Your task to perform on an android device: set an alarm Image 0: 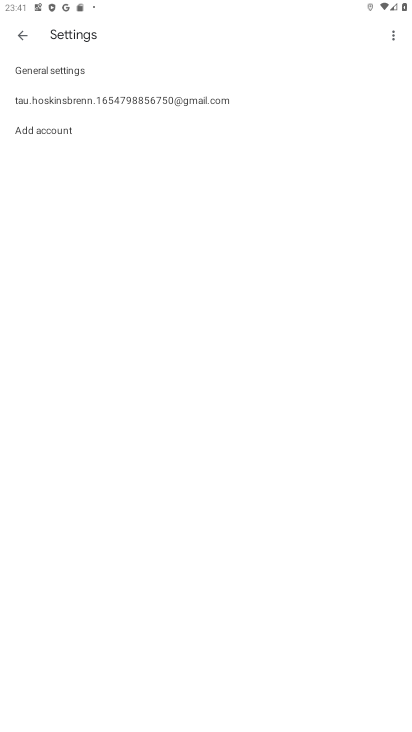
Step 0: press home button
Your task to perform on an android device: set an alarm Image 1: 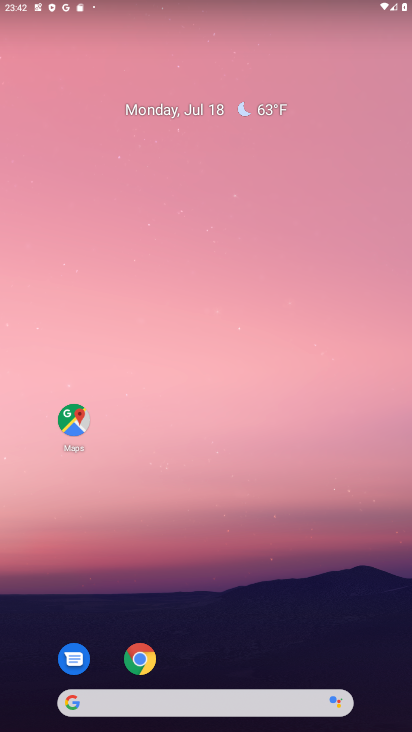
Step 1: drag from (272, 626) to (265, 187)
Your task to perform on an android device: set an alarm Image 2: 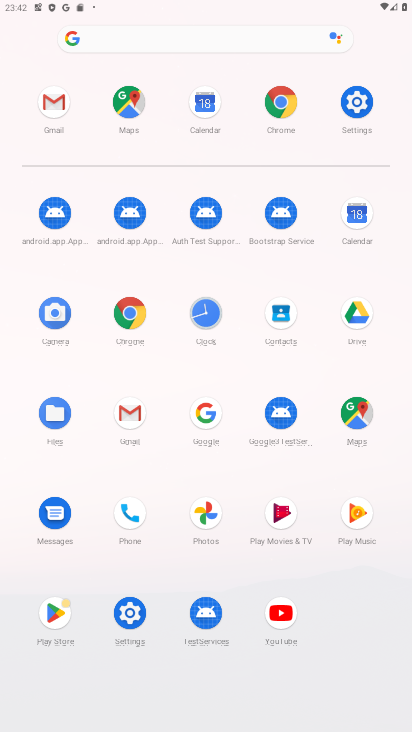
Step 2: click (210, 304)
Your task to perform on an android device: set an alarm Image 3: 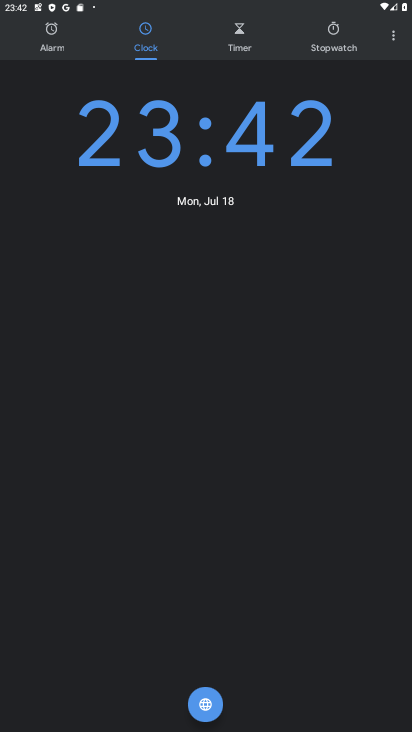
Step 3: click (55, 47)
Your task to perform on an android device: set an alarm Image 4: 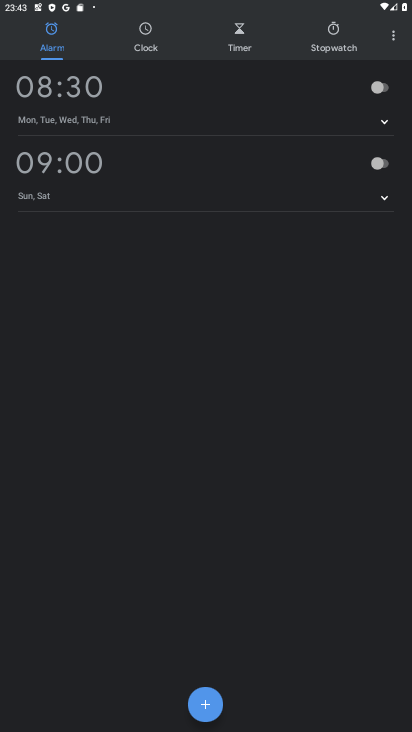
Step 4: click (226, 706)
Your task to perform on an android device: set an alarm Image 5: 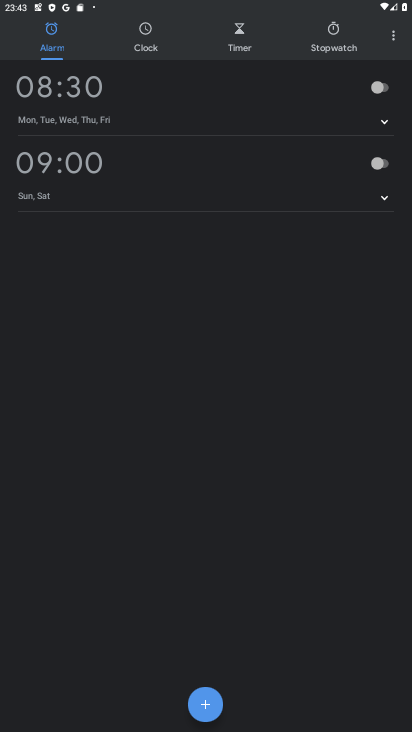
Step 5: click (214, 704)
Your task to perform on an android device: set an alarm Image 6: 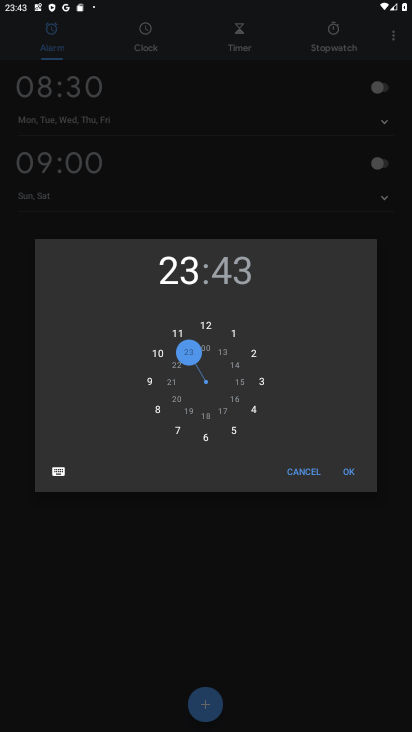
Step 6: click (351, 470)
Your task to perform on an android device: set an alarm Image 7: 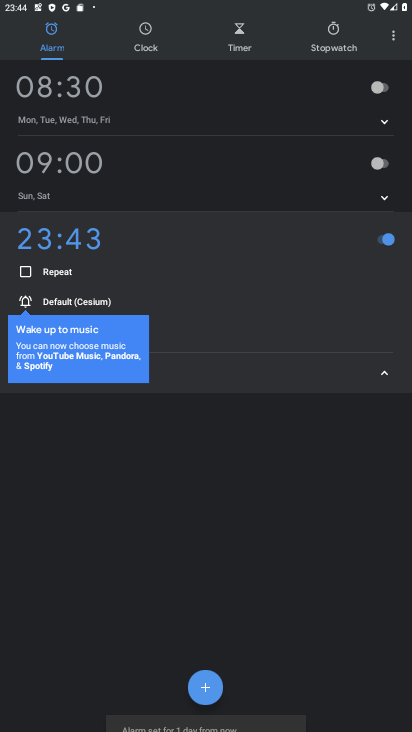
Step 7: task complete